Your task to perform on an android device: turn smart compose on in the gmail app Image 0: 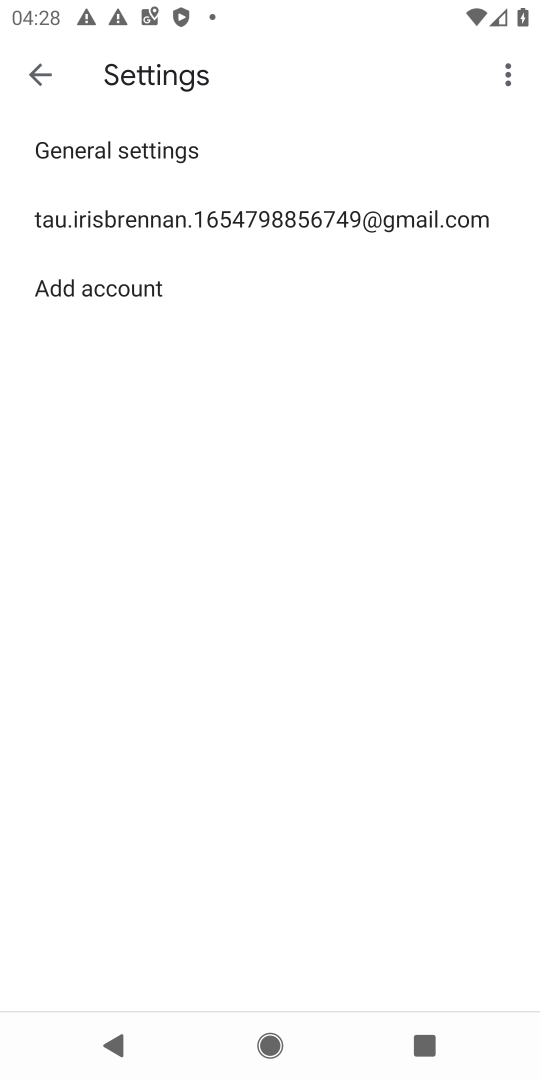
Step 0: press home button
Your task to perform on an android device: turn smart compose on in the gmail app Image 1: 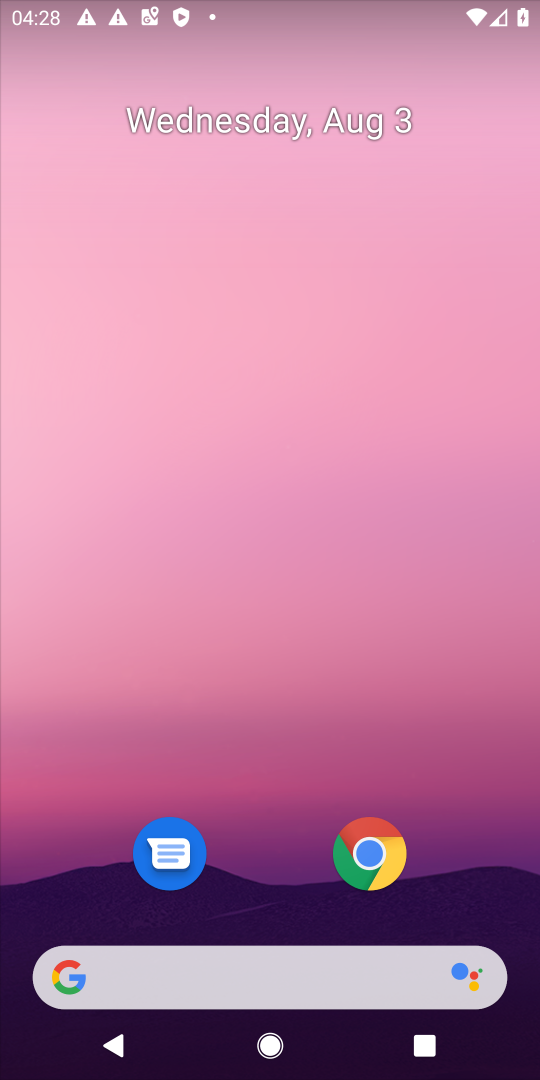
Step 1: drag from (504, 891) to (353, 30)
Your task to perform on an android device: turn smart compose on in the gmail app Image 2: 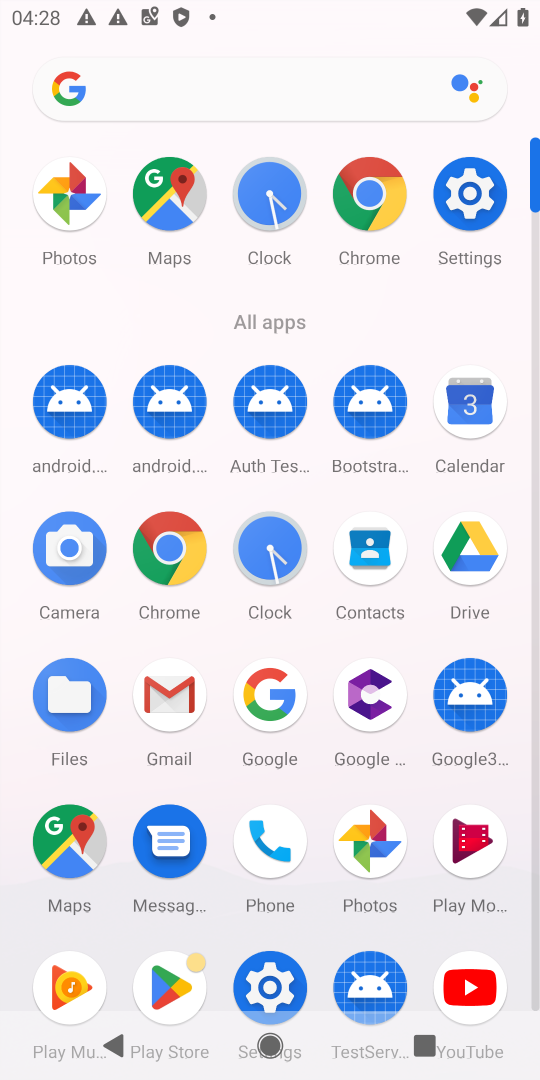
Step 2: click (167, 722)
Your task to perform on an android device: turn smart compose on in the gmail app Image 3: 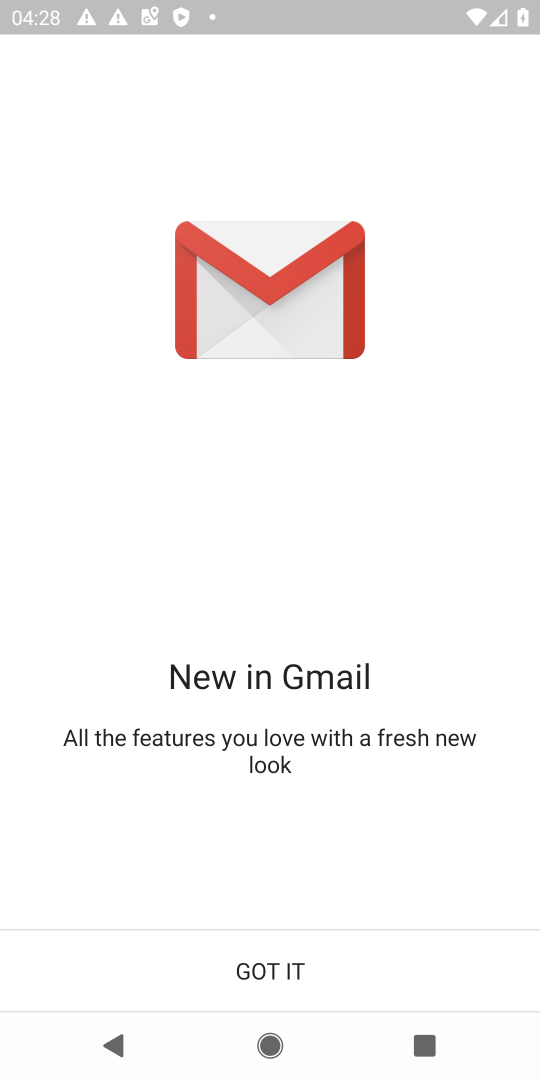
Step 3: click (315, 951)
Your task to perform on an android device: turn smart compose on in the gmail app Image 4: 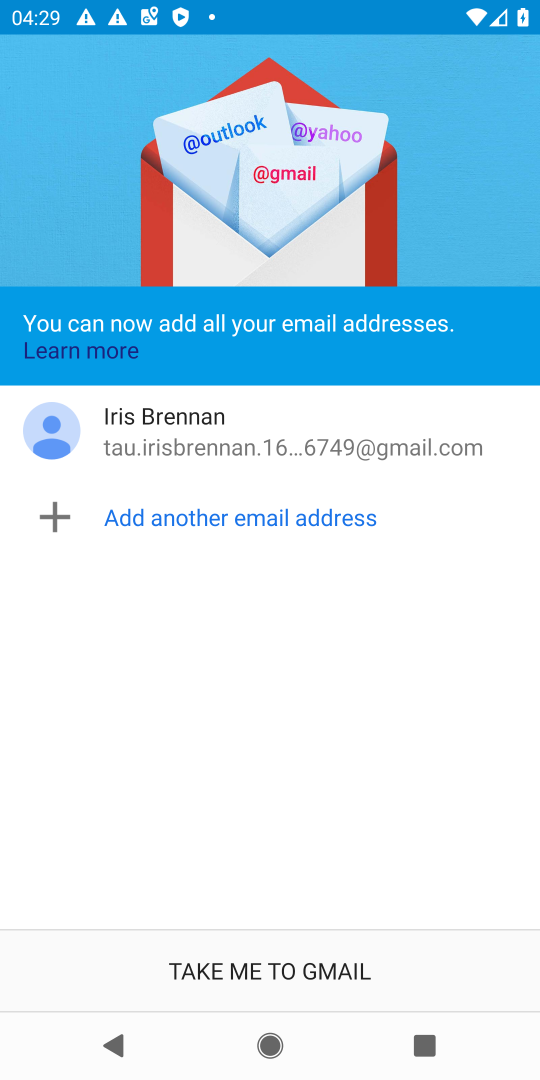
Step 4: click (385, 980)
Your task to perform on an android device: turn smart compose on in the gmail app Image 5: 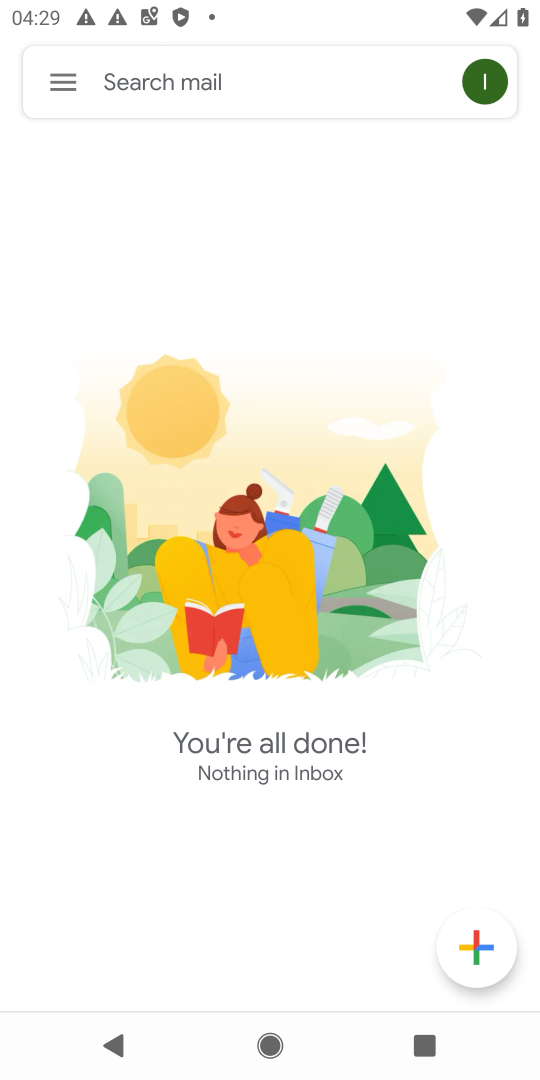
Step 5: click (59, 78)
Your task to perform on an android device: turn smart compose on in the gmail app Image 6: 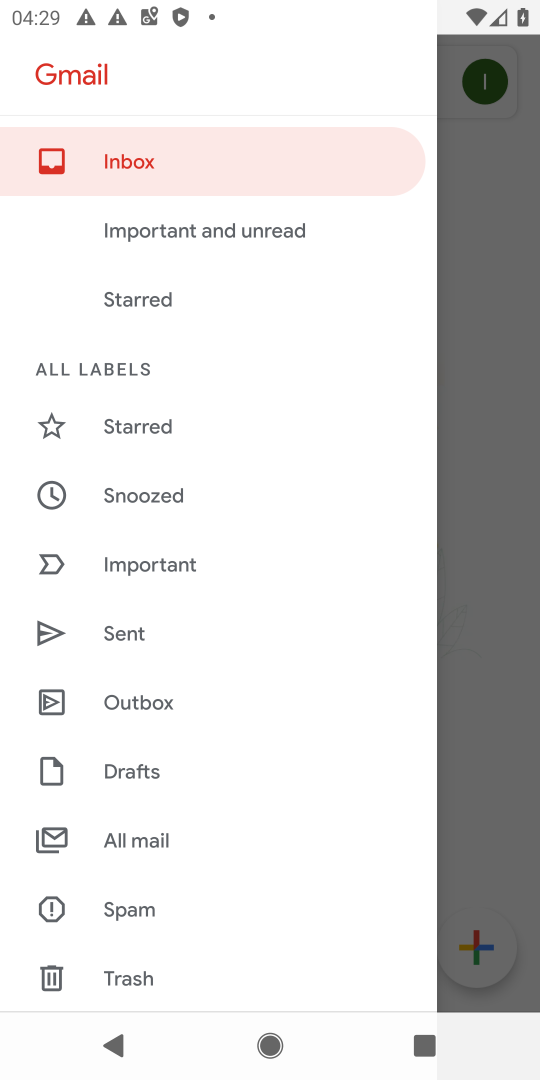
Step 6: drag from (218, 914) to (176, 518)
Your task to perform on an android device: turn smart compose on in the gmail app Image 7: 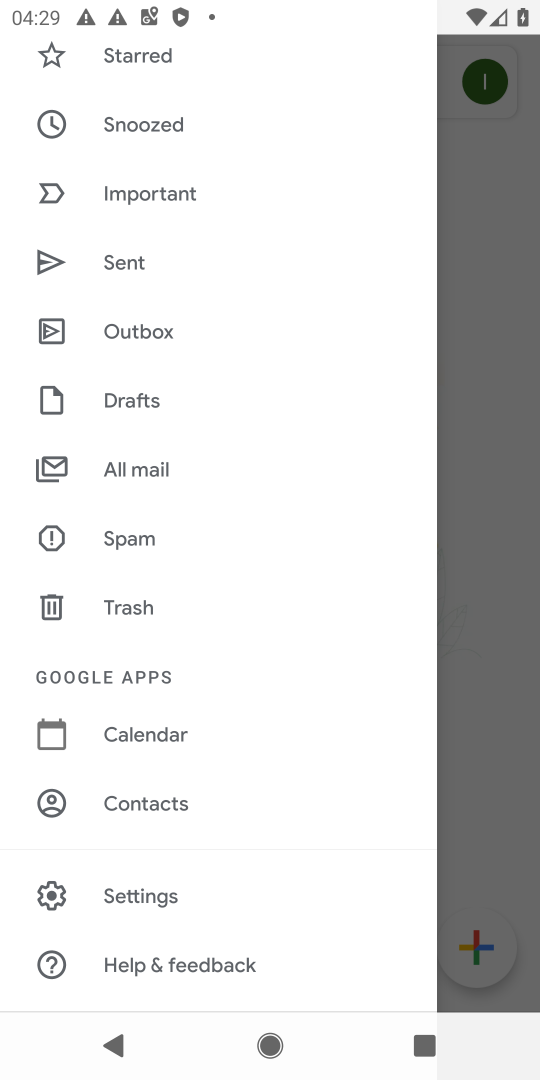
Step 7: click (276, 895)
Your task to perform on an android device: turn smart compose on in the gmail app Image 8: 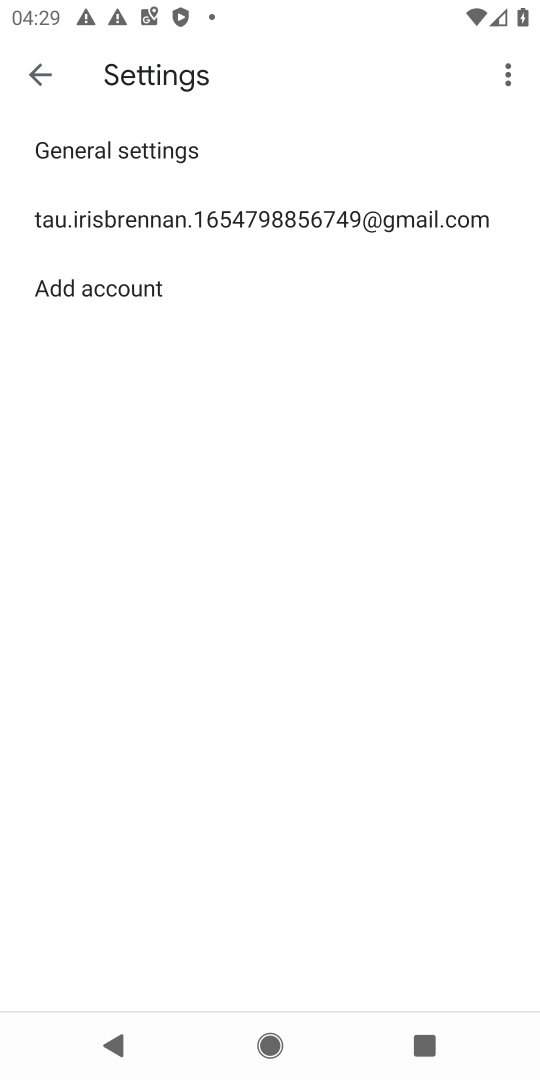
Step 8: click (169, 217)
Your task to perform on an android device: turn smart compose on in the gmail app Image 9: 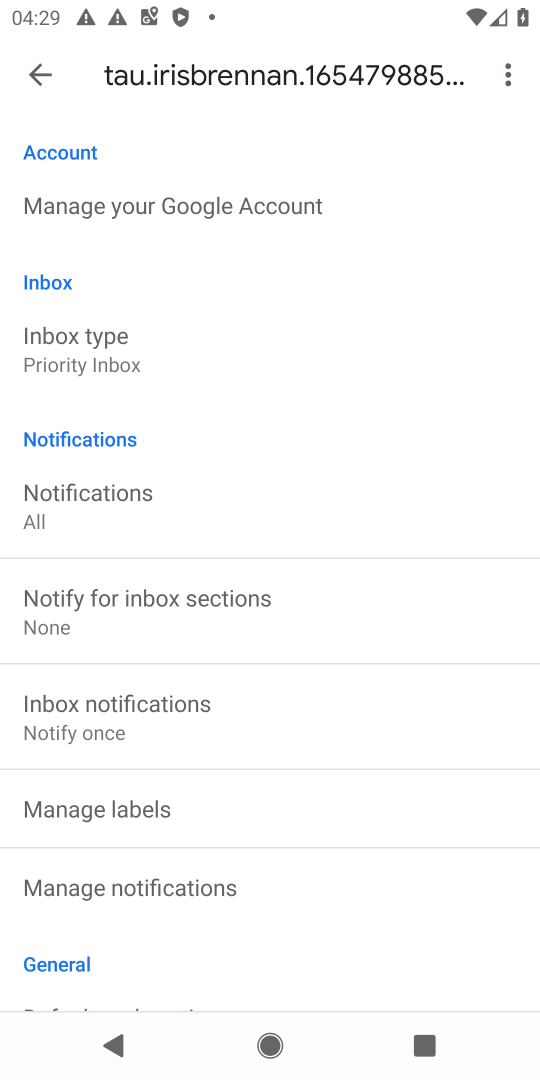
Step 9: task complete